Your task to perform on an android device: snooze an email in the gmail app Image 0: 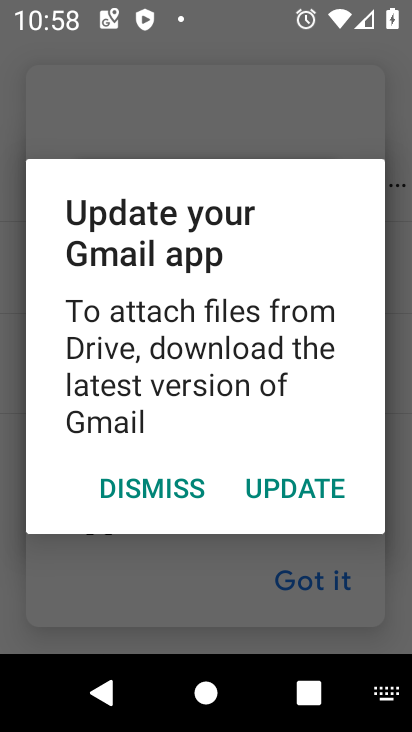
Step 0: press home button
Your task to perform on an android device: snooze an email in the gmail app Image 1: 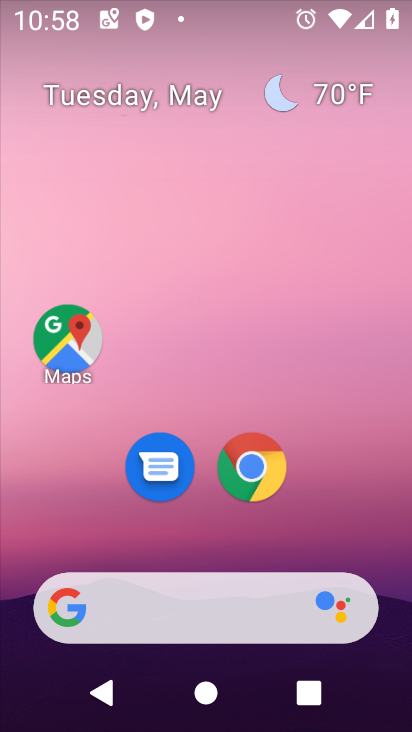
Step 1: drag from (127, 575) to (231, 61)
Your task to perform on an android device: snooze an email in the gmail app Image 2: 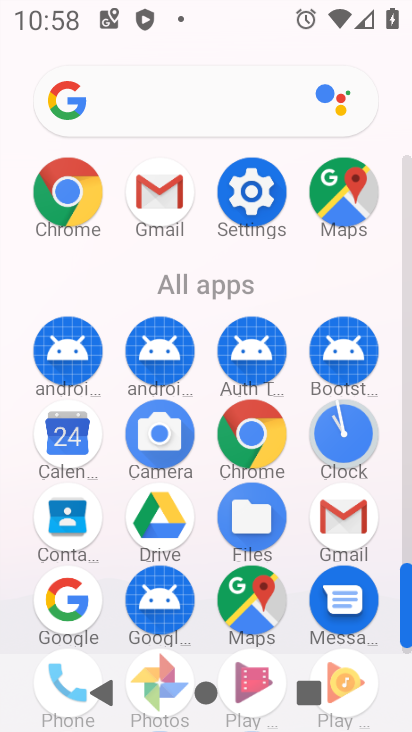
Step 2: click (334, 527)
Your task to perform on an android device: snooze an email in the gmail app Image 3: 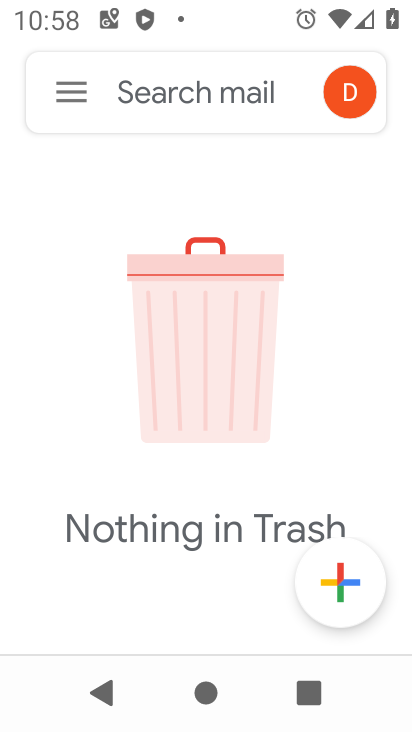
Step 3: click (94, 95)
Your task to perform on an android device: snooze an email in the gmail app Image 4: 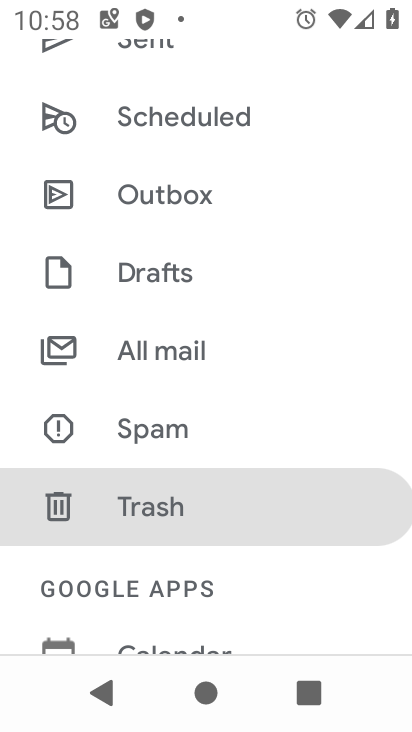
Step 4: click (205, 361)
Your task to perform on an android device: snooze an email in the gmail app Image 5: 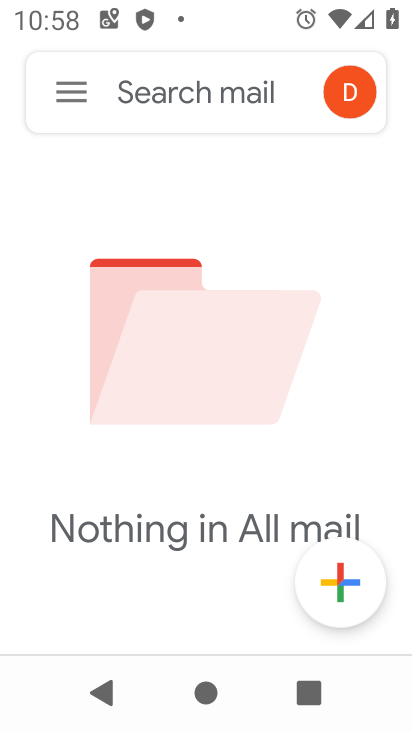
Step 5: task complete